Your task to perform on an android device: Open calendar and show me the second week of next month Image 0: 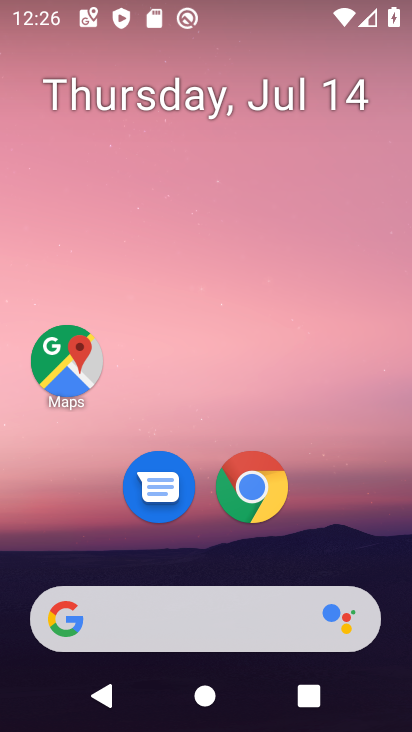
Step 0: drag from (225, 615) to (220, 293)
Your task to perform on an android device: Open calendar and show me the second week of next month Image 1: 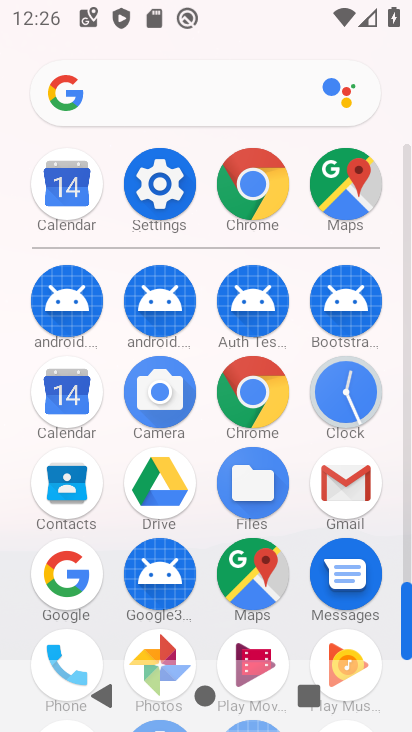
Step 1: click (65, 409)
Your task to perform on an android device: Open calendar and show me the second week of next month Image 2: 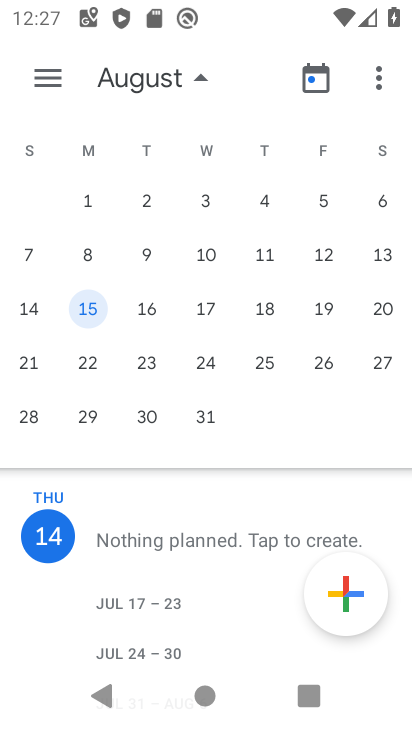
Step 2: click (84, 255)
Your task to perform on an android device: Open calendar and show me the second week of next month Image 3: 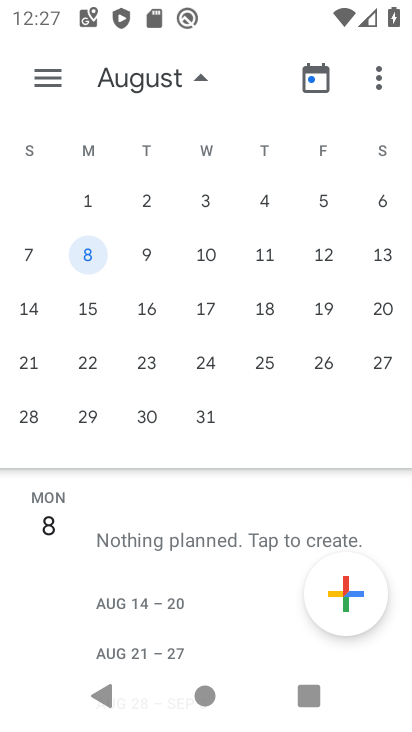
Step 3: task complete